Your task to perform on an android device: empty trash in the gmail app Image 0: 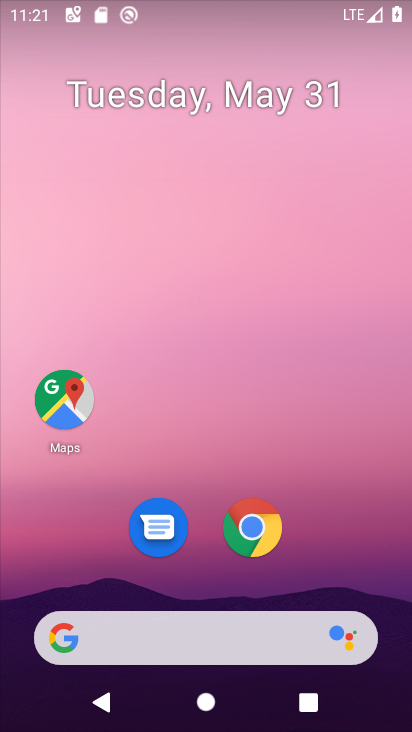
Step 0: drag from (360, 285) to (342, 3)
Your task to perform on an android device: empty trash in the gmail app Image 1: 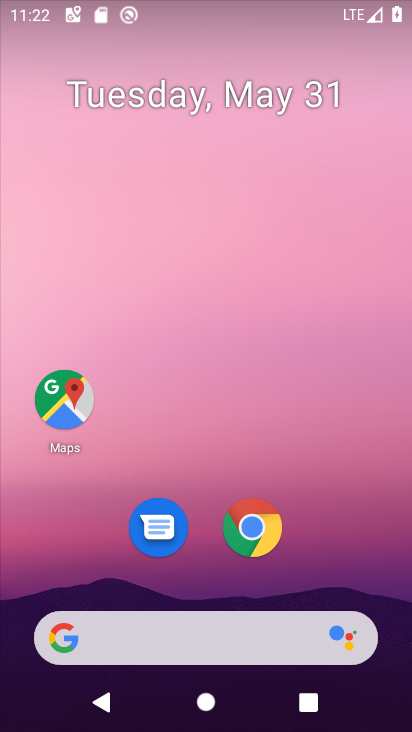
Step 1: drag from (354, 606) to (370, 0)
Your task to perform on an android device: empty trash in the gmail app Image 2: 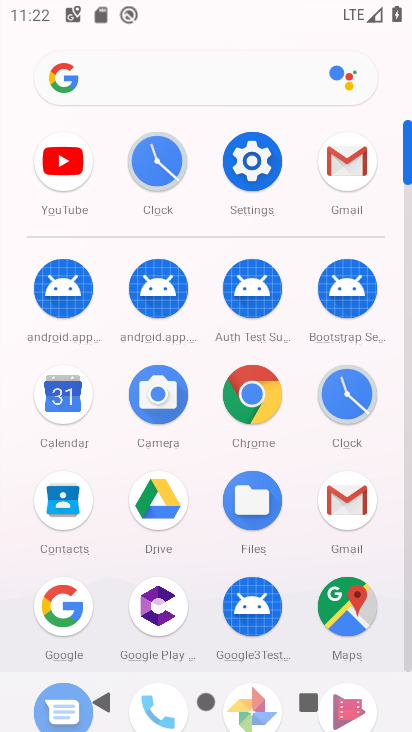
Step 2: click (342, 174)
Your task to perform on an android device: empty trash in the gmail app Image 3: 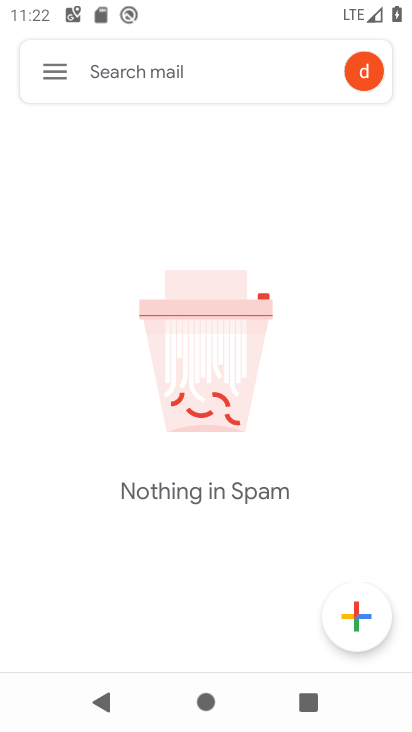
Step 3: click (42, 75)
Your task to perform on an android device: empty trash in the gmail app Image 4: 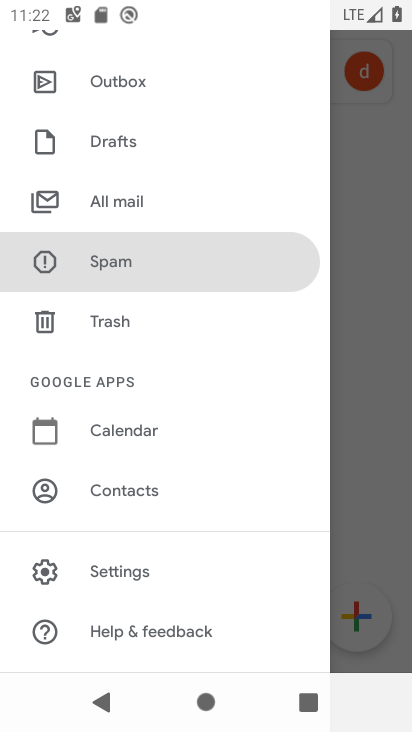
Step 4: click (109, 319)
Your task to perform on an android device: empty trash in the gmail app Image 5: 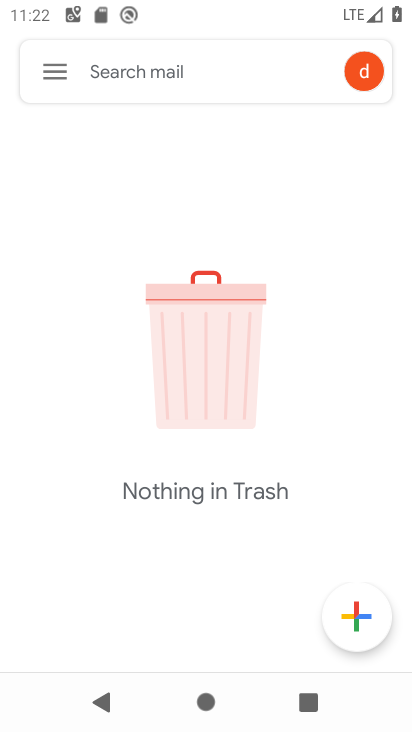
Step 5: task complete